Your task to perform on an android device: install app "Chime – Mobile Banking" Image 0: 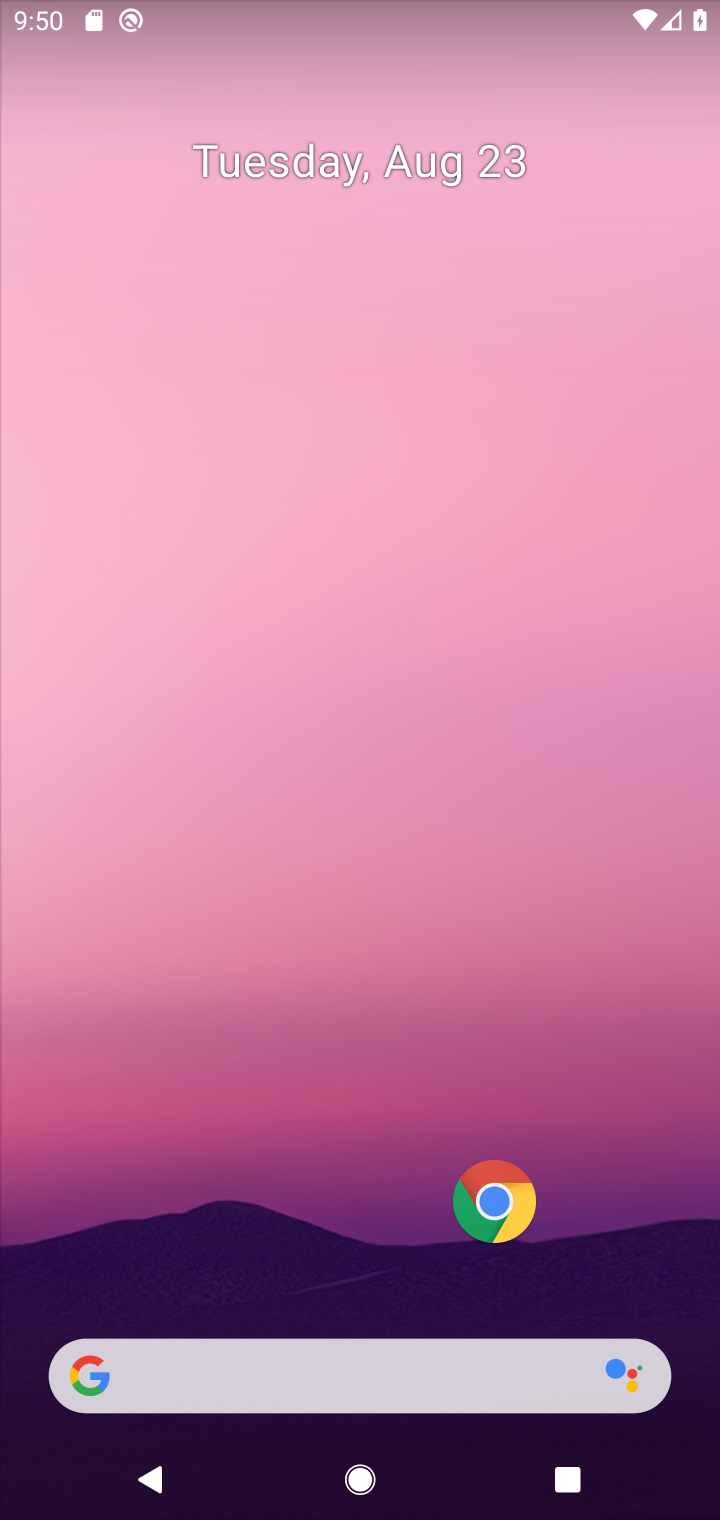
Step 0: drag from (319, 1243) to (307, 878)
Your task to perform on an android device: install app "Chime – Mobile Banking" Image 1: 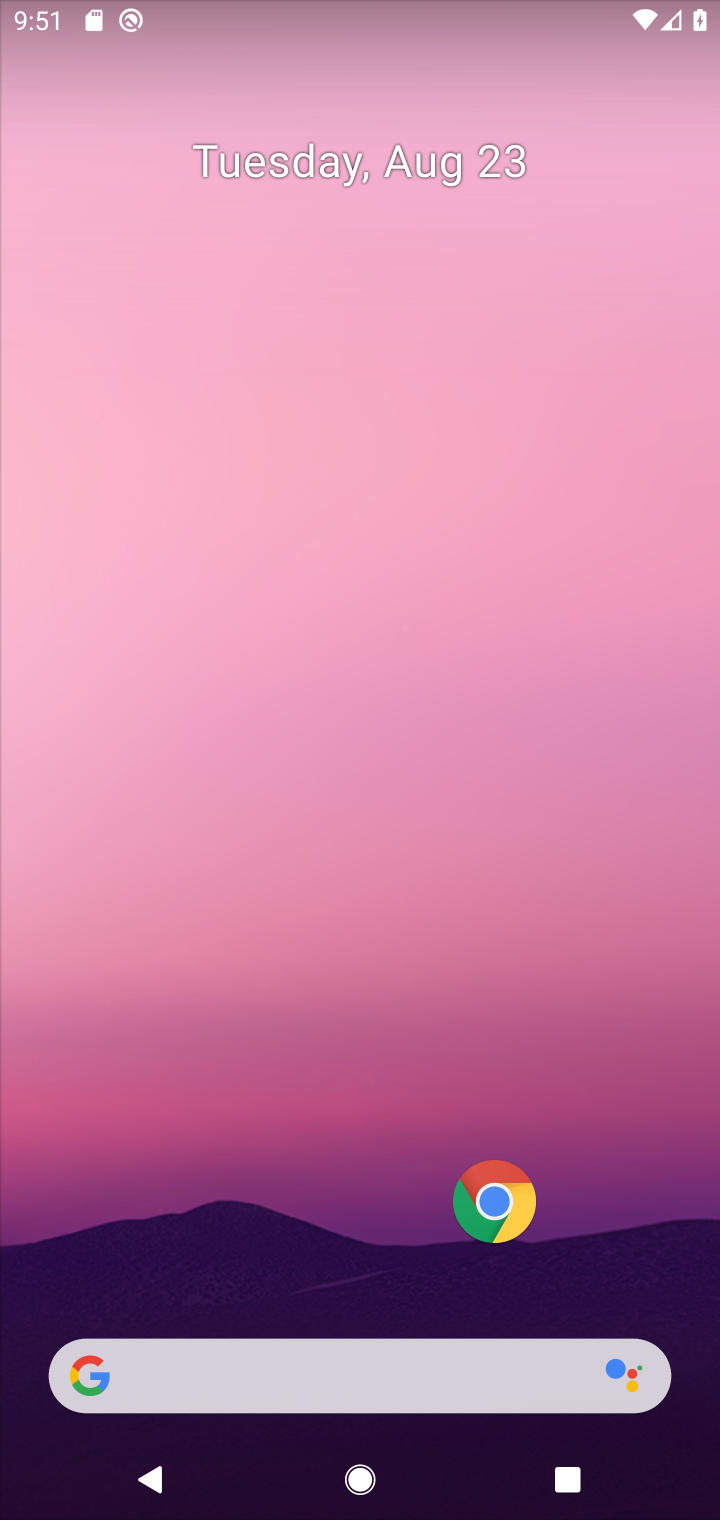
Step 1: drag from (298, 1229) to (285, 57)
Your task to perform on an android device: install app "Chime – Mobile Banking" Image 2: 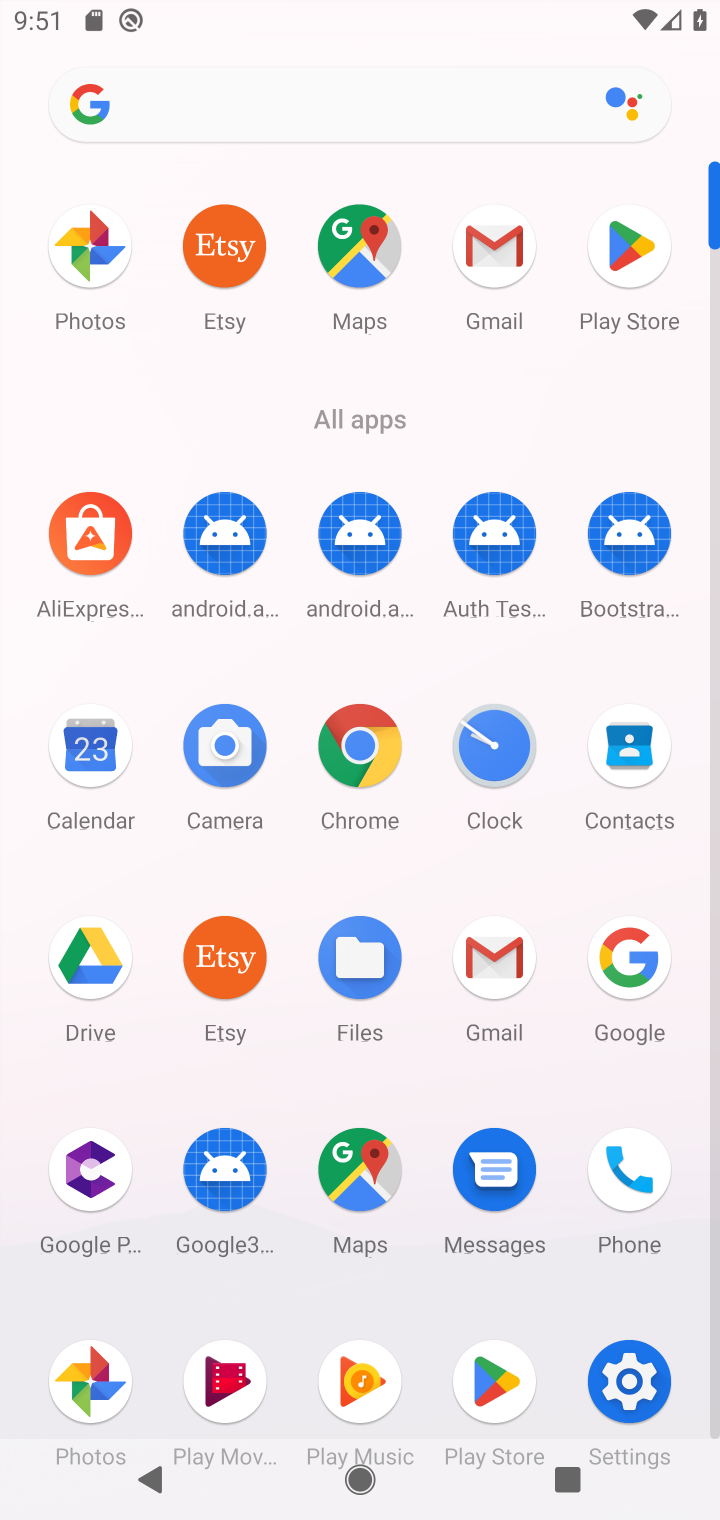
Step 2: click (645, 242)
Your task to perform on an android device: install app "Chime – Mobile Banking" Image 3: 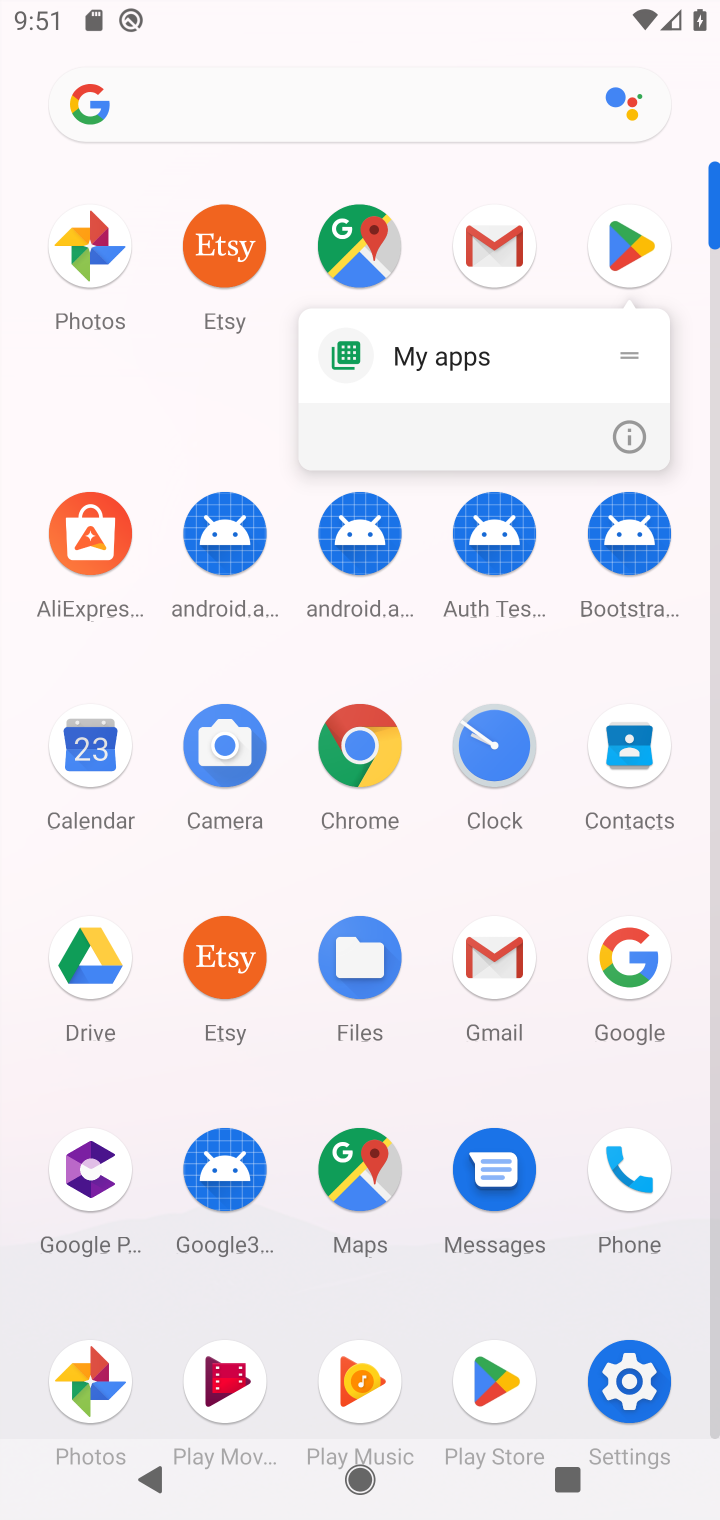
Step 3: click (629, 261)
Your task to perform on an android device: install app "Chime – Mobile Banking" Image 4: 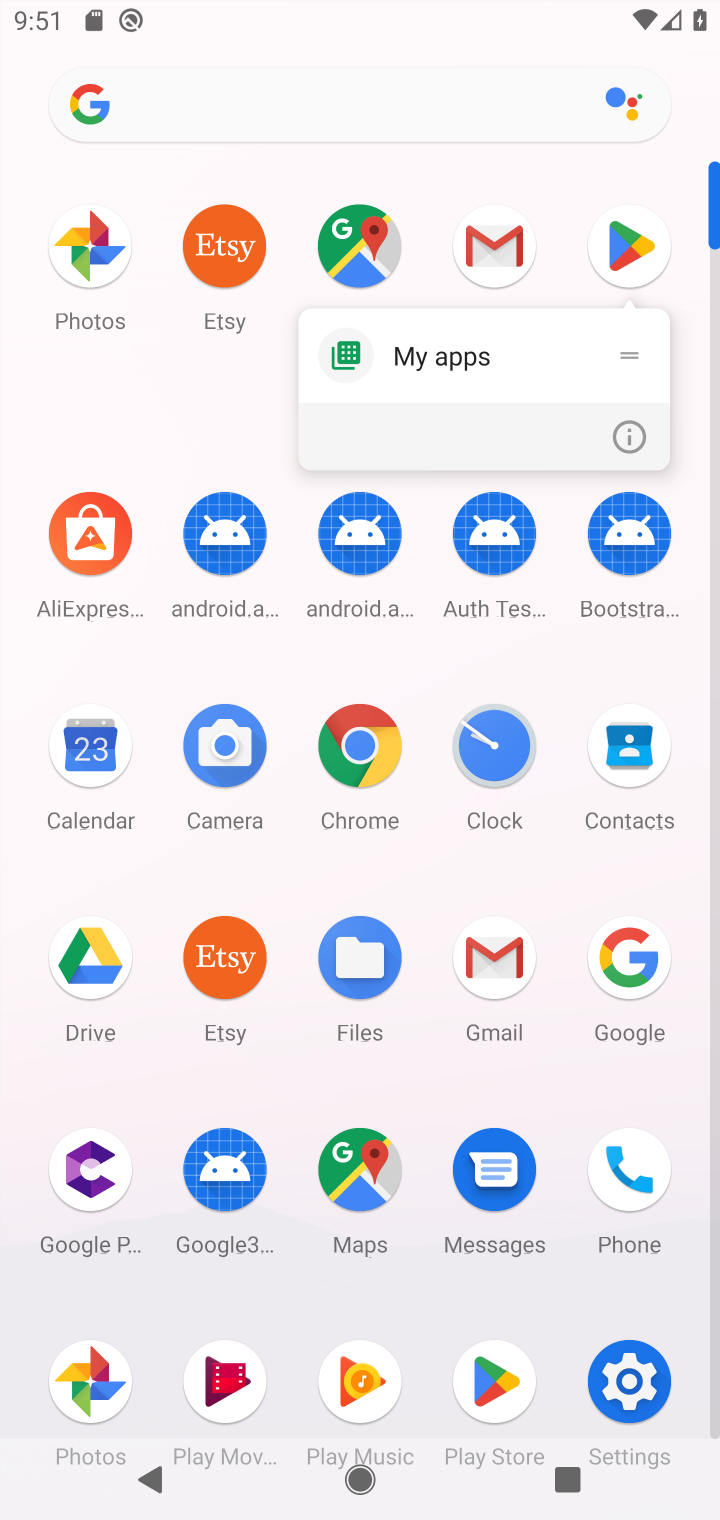
Step 4: click (487, 1366)
Your task to perform on an android device: install app "Chime – Mobile Banking" Image 5: 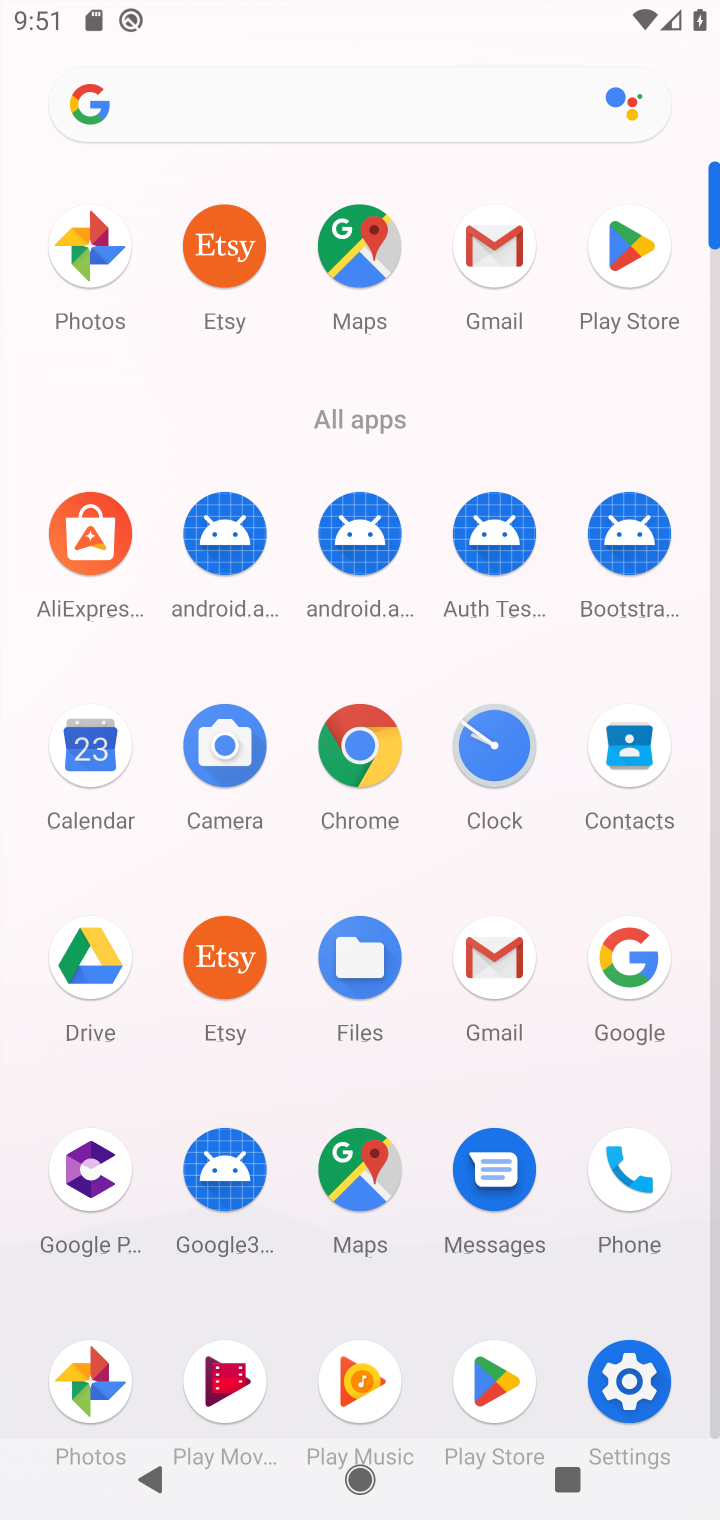
Step 5: click (496, 1363)
Your task to perform on an android device: install app "Chime – Mobile Banking" Image 6: 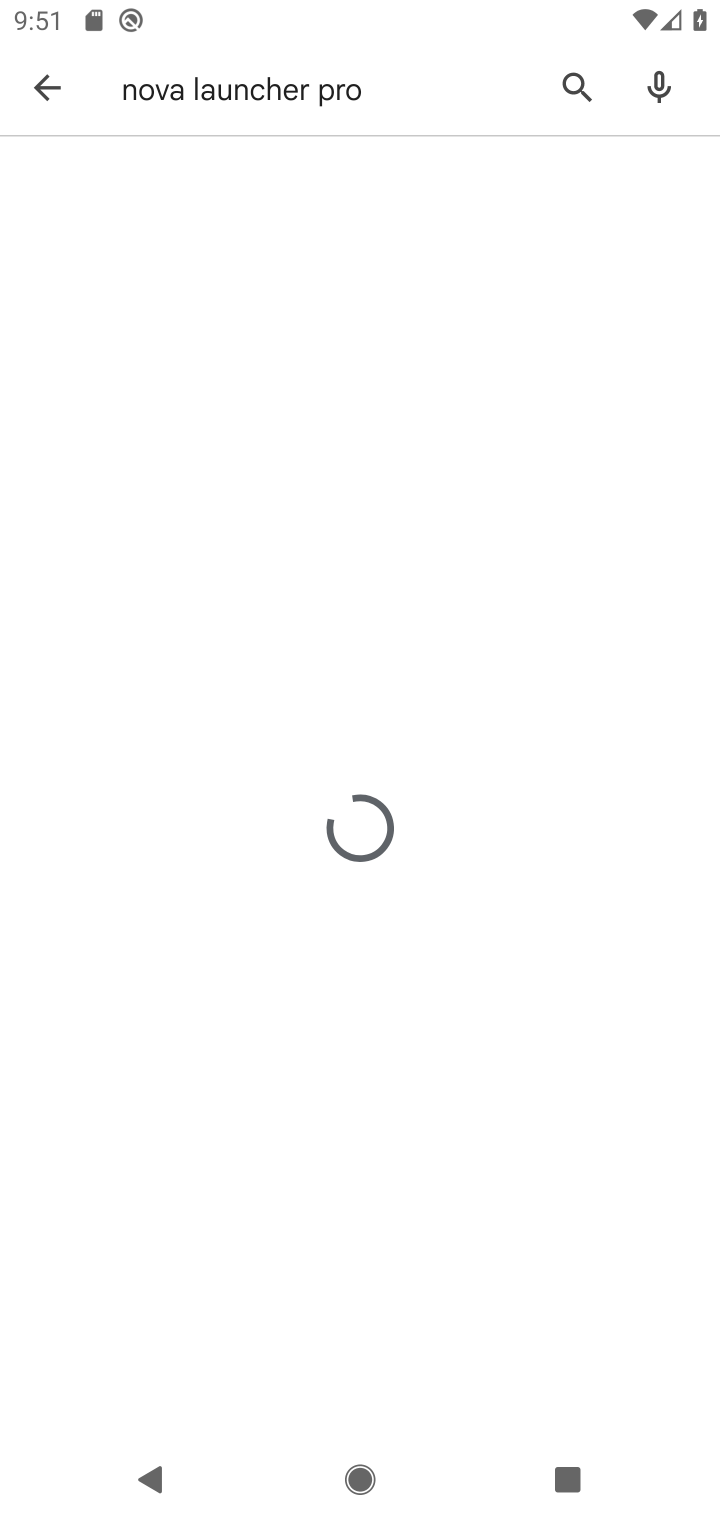
Step 6: click (575, 96)
Your task to perform on an android device: install app "Chime – Mobile Banking" Image 7: 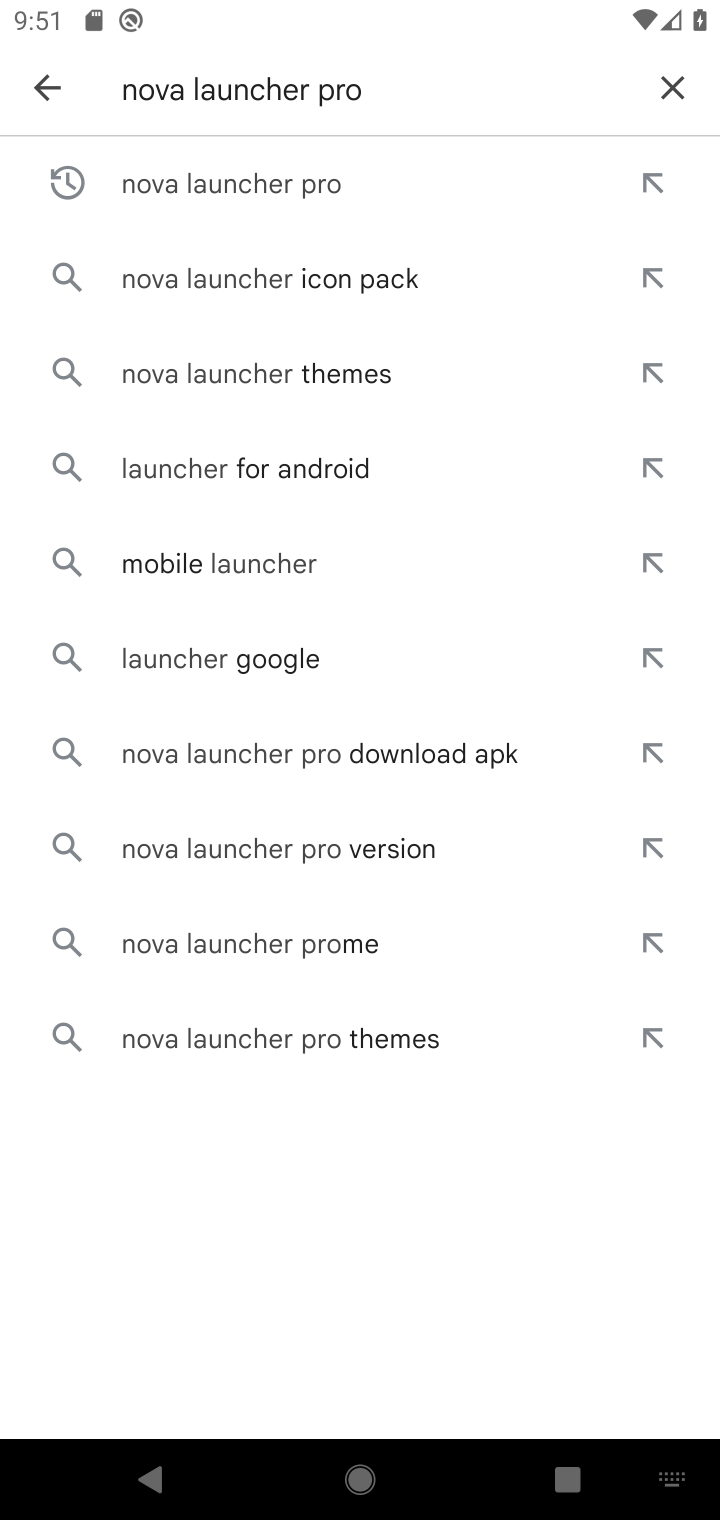
Step 7: click (682, 92)
Your task to perform on an android device: install app "Chime – Mobile Banking" Image 8: 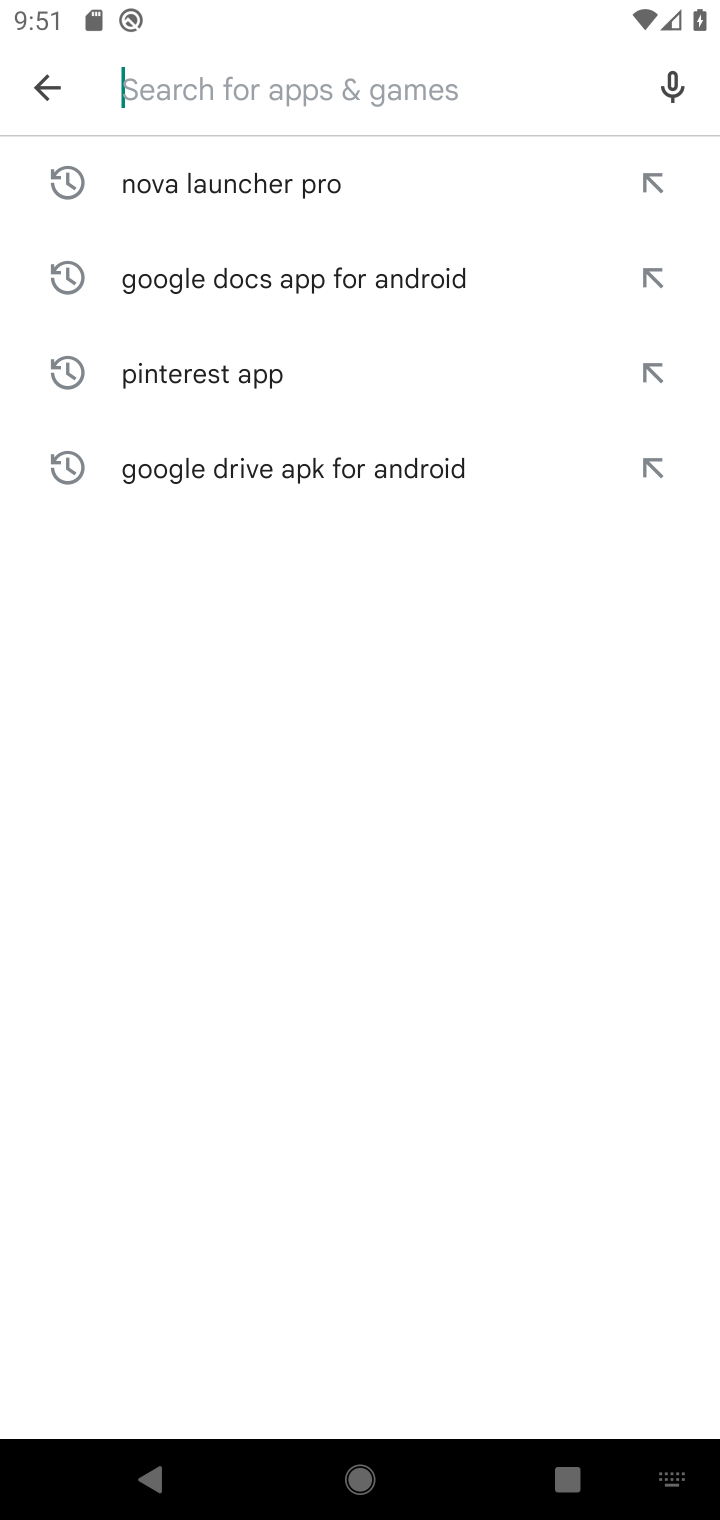
Step 8: click (474, 85)
Your task to perform on an android device: install app "Chime – Mobile Banking" Image 9: 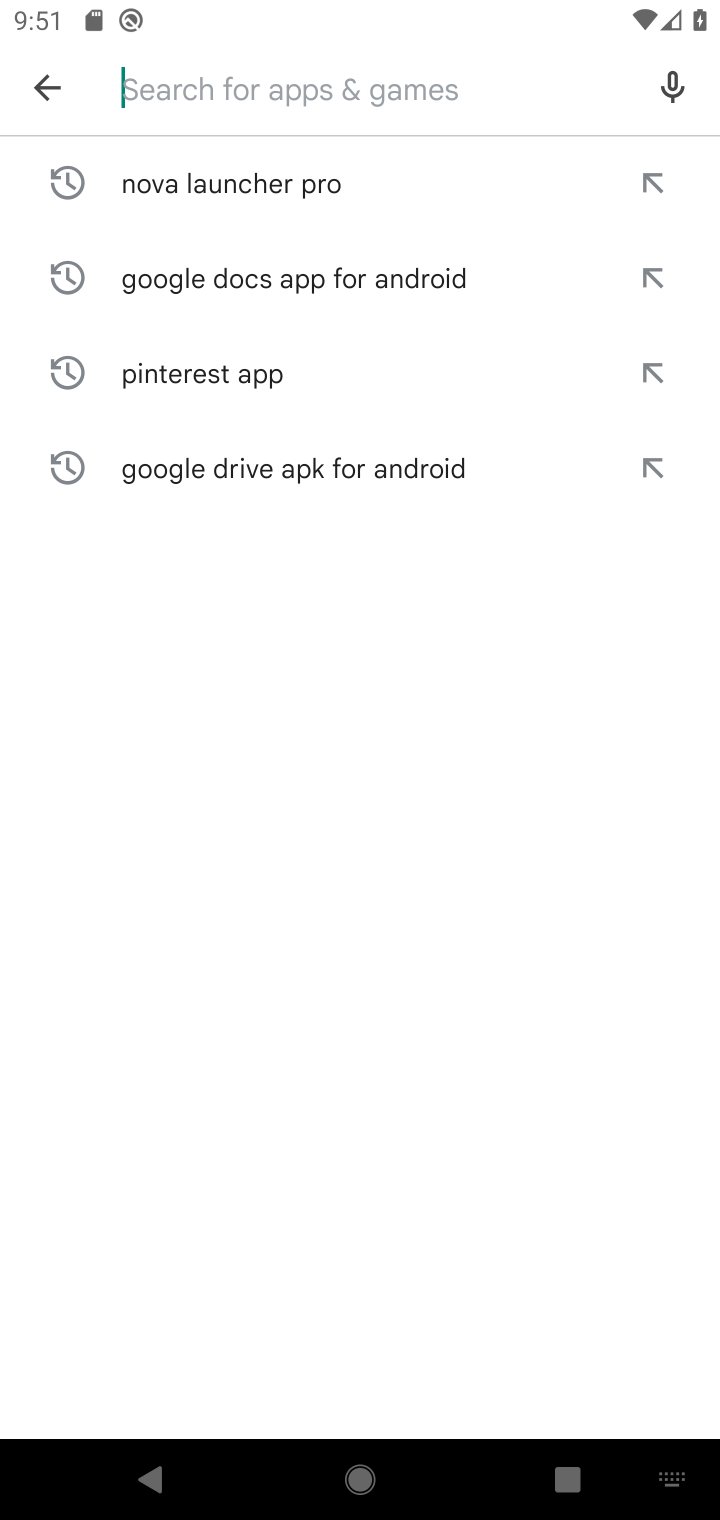
Step 9: type "chime "
Your task to perform on an android device: install app "Chime – Mobile Banking" Image 10: 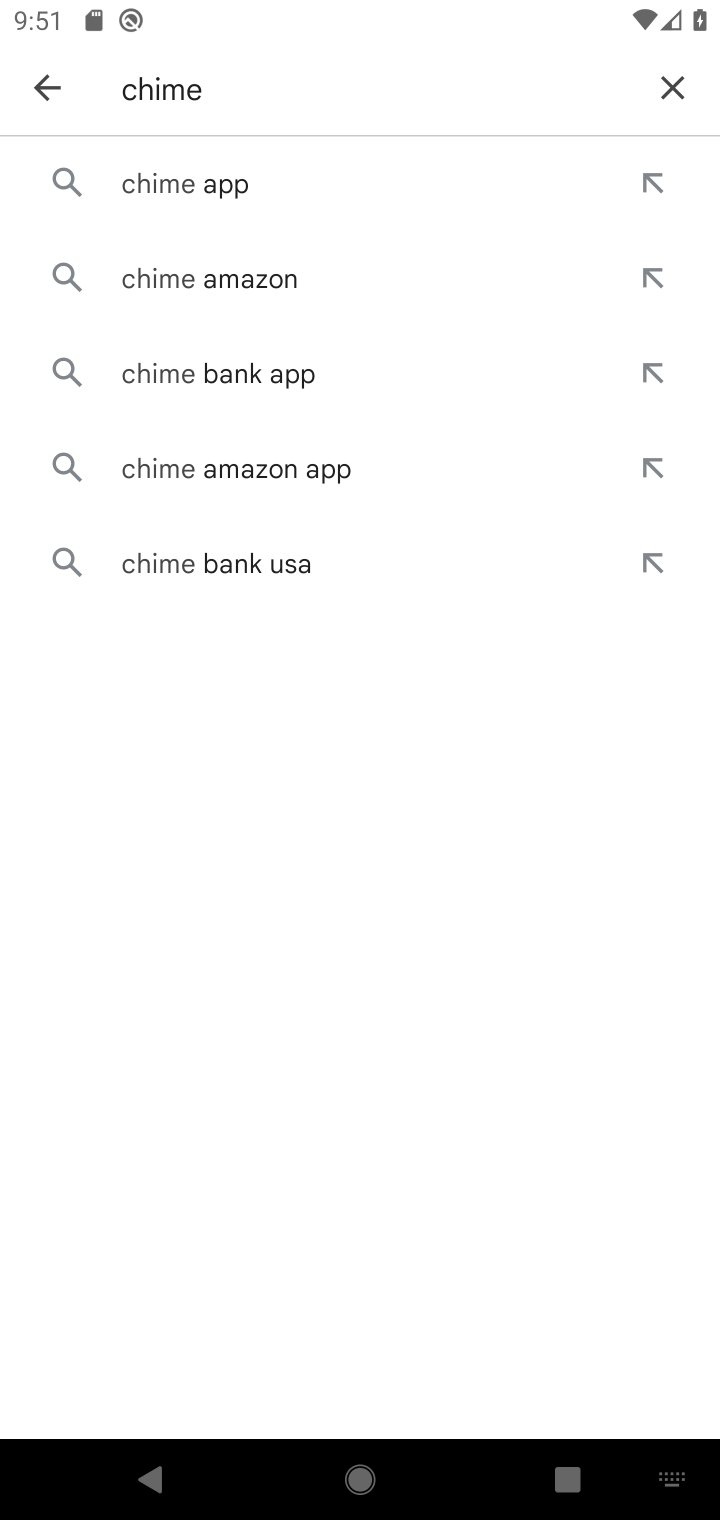
Step 10: click (236, 194)
Your task to perform on an android device: install app "Chime – Mobile Banking" Image 11: 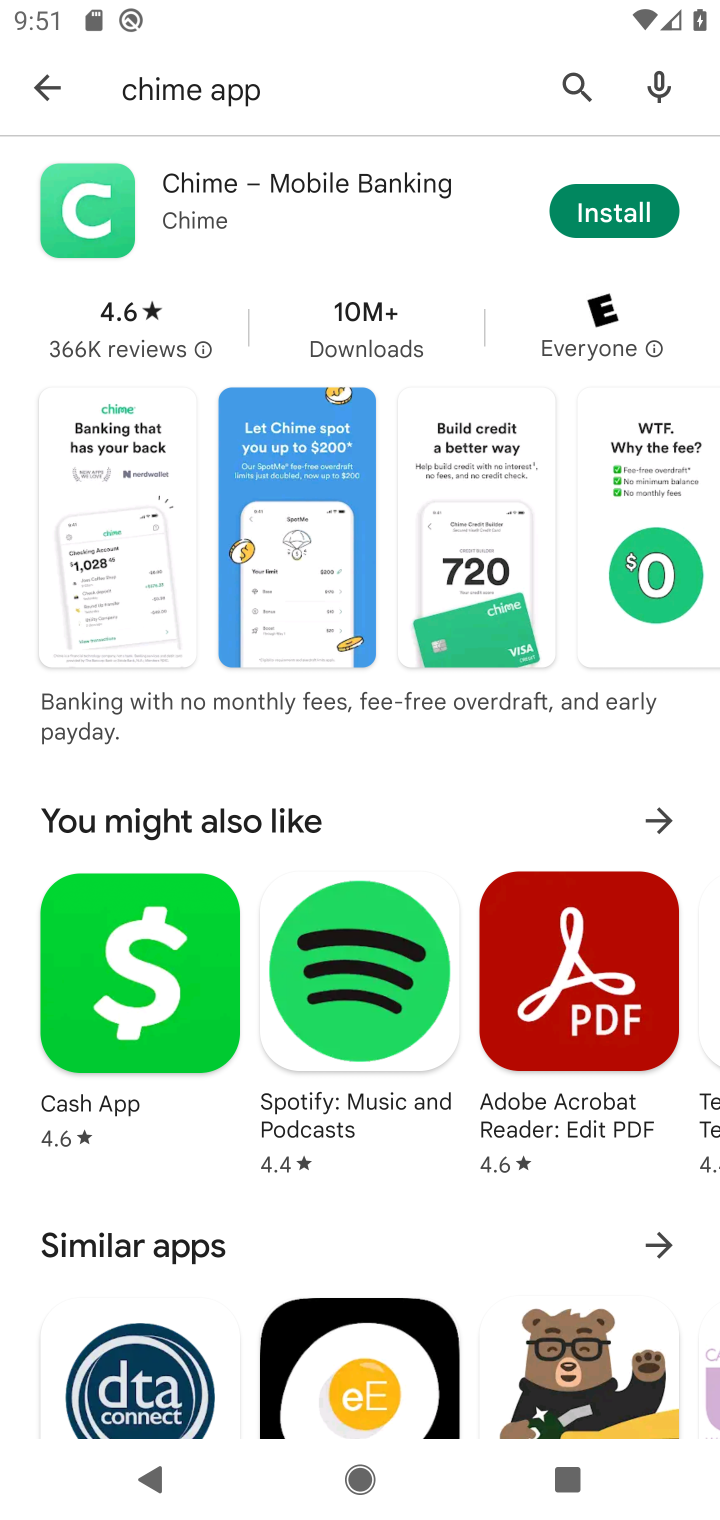
Step 11: click (584, 219)
Your task to perform on an android device: install app "Chime – Mobile Banking" Image 12: 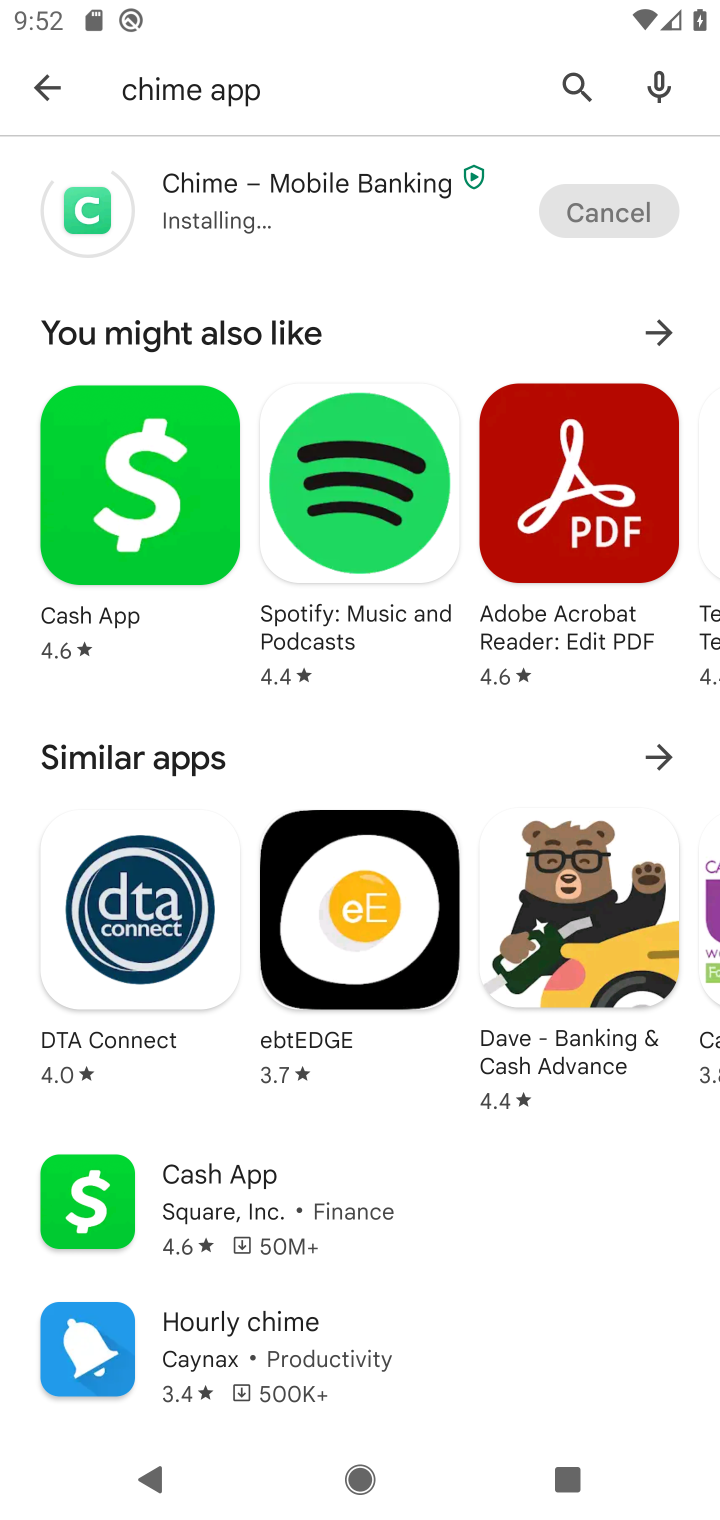
Step 12: task complete